Your task to perform on an android device: toggle improve location accuracy Image 0: 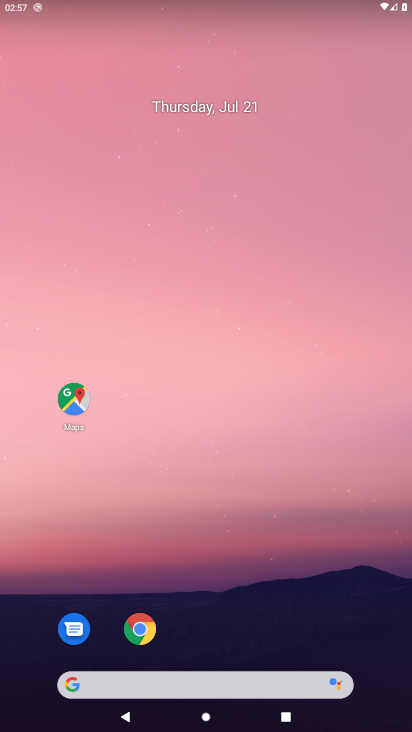
Step 0: drag from (27, 668) to (226, 150)
Your task to perform on an android device: toggle improve location accuracy Image 1: 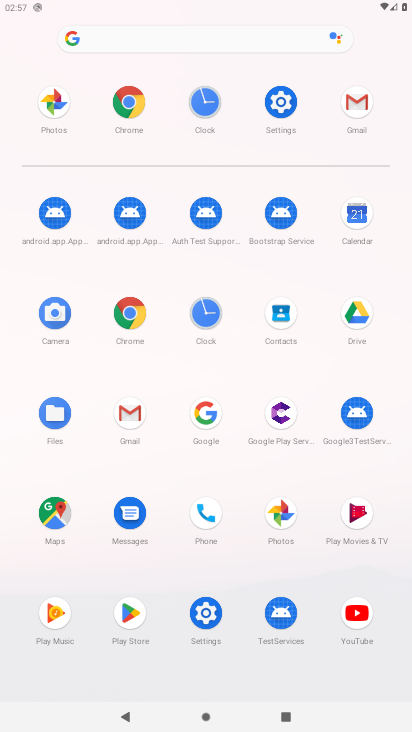
Step 1: click (197, 617)
Your task to perform on an android device: toggle improve location accuracy Image 2: 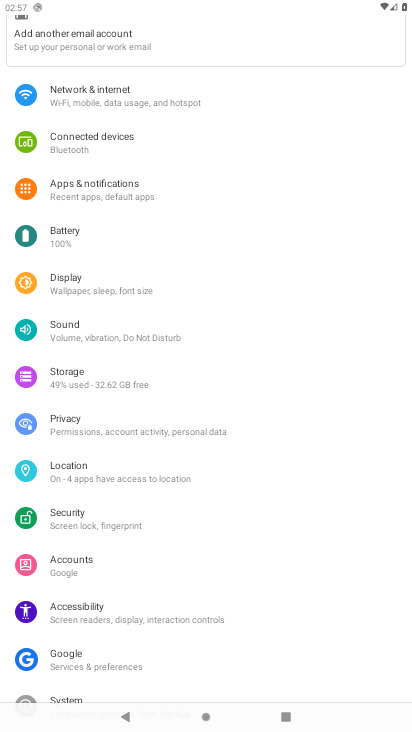
Step 2: click (98, 482)
Your task to perform on an android device: toggle improve location accuracy Image 3: 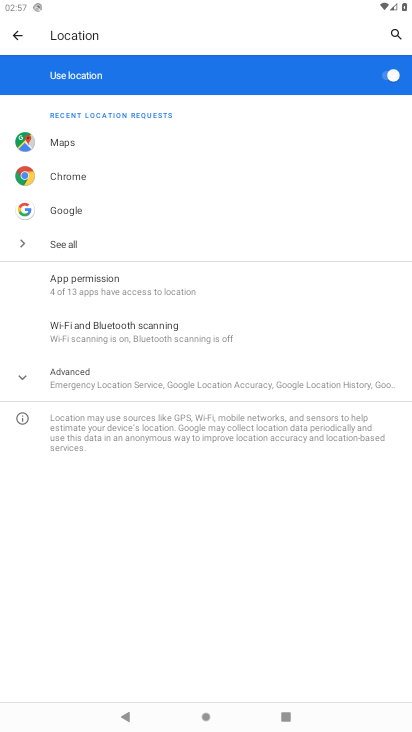
Step 3: click (88, 371)
Your task to perform on an android device: toggle improve location accuracy Image 4: 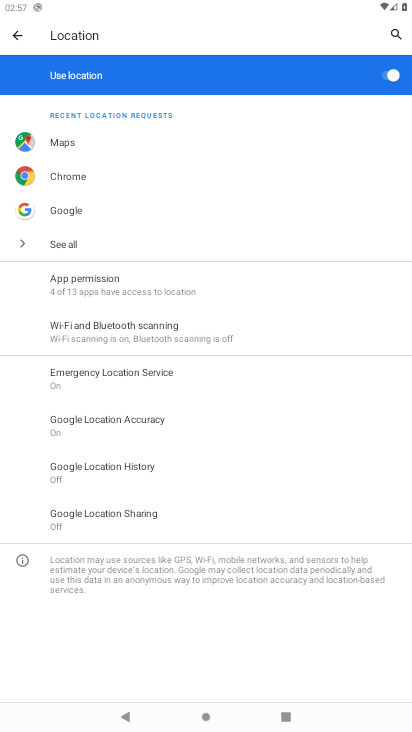
Step 4: task complete